Your task to perform on an android device: set an alarm Image 0: 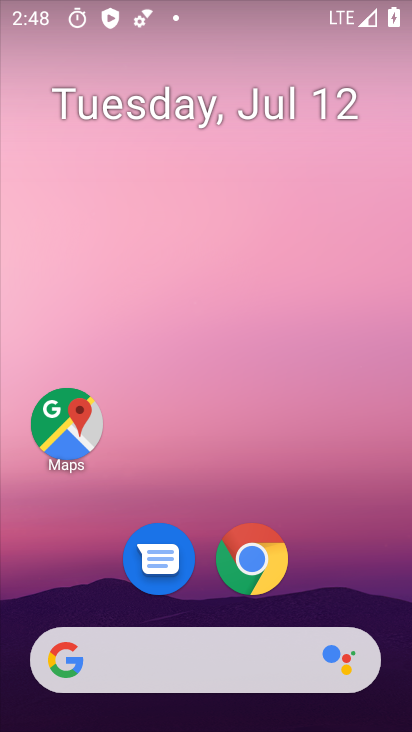
Step 0: drag from (377, 606) to (388, 375)
Your task to perform on an android device: set an alarm Image 1: 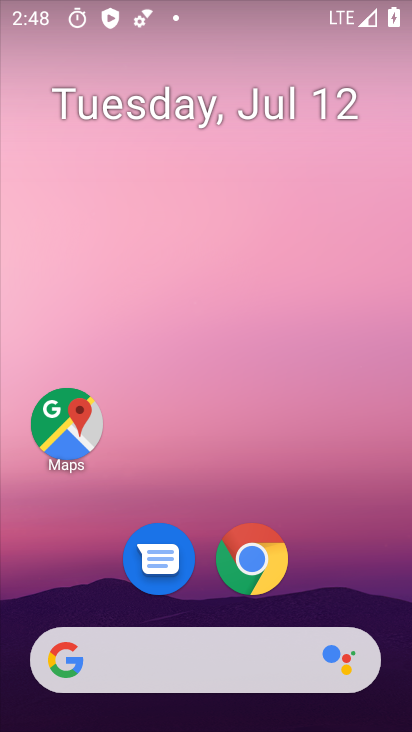
Step 1: drag from (356, 596) to (374, 226)
Your task to perform on an android device: set an alarm Image 2: 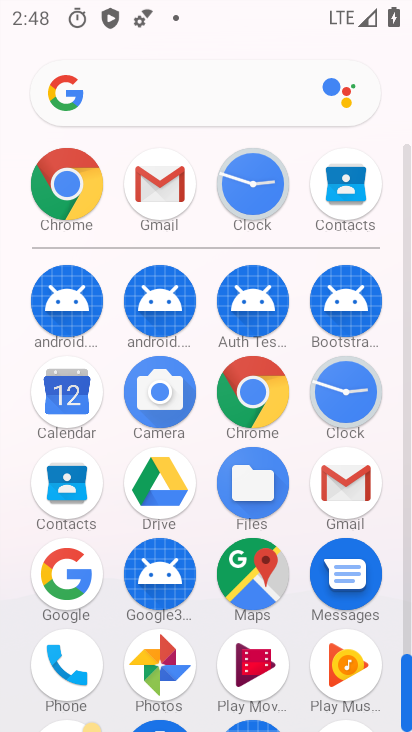
Step 2: click (367, 403)
Your task to perform on an android device: set an alarm Image 3: 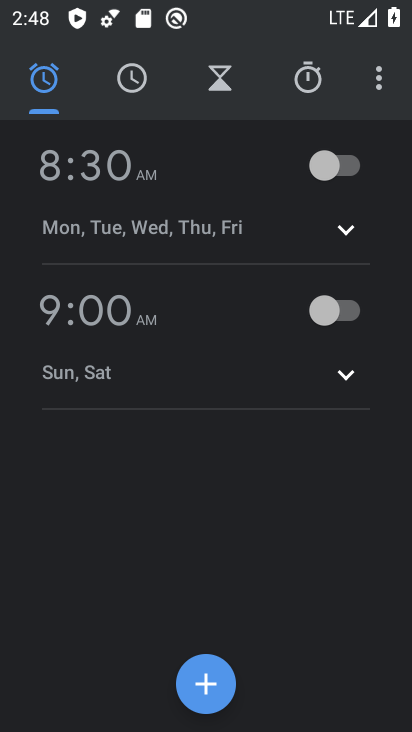
Step 3: click (212, 695)
Your task to perform on an android device: set an alarm Image 4: 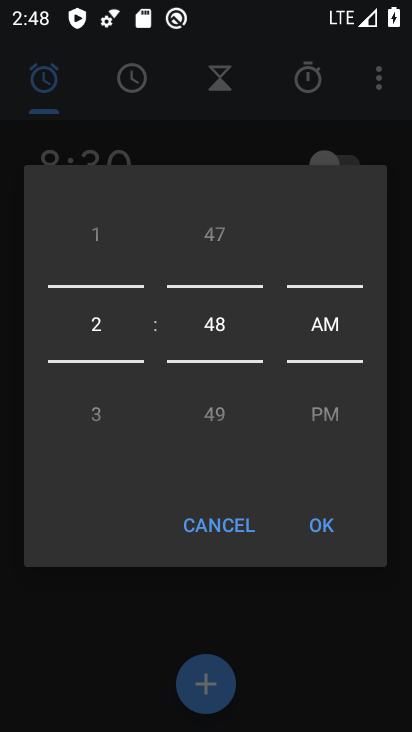
Step 4: click (329, 542)
Your task to perform on an android device: set an alarm Image 5: 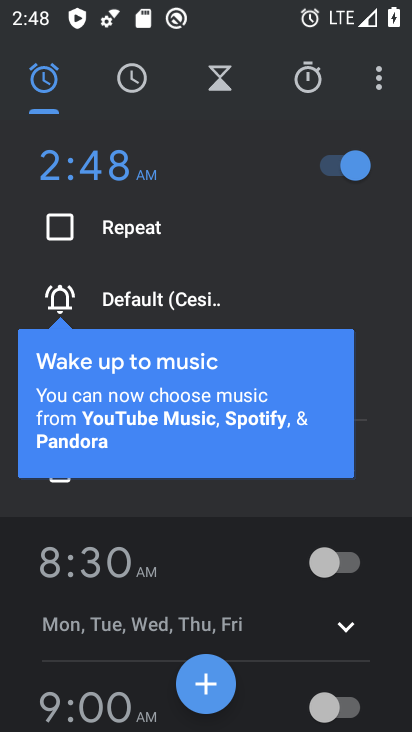
Step 5: task complete